Your task to perform on an android device: delete the emails in spam in the gmail app Image 0: 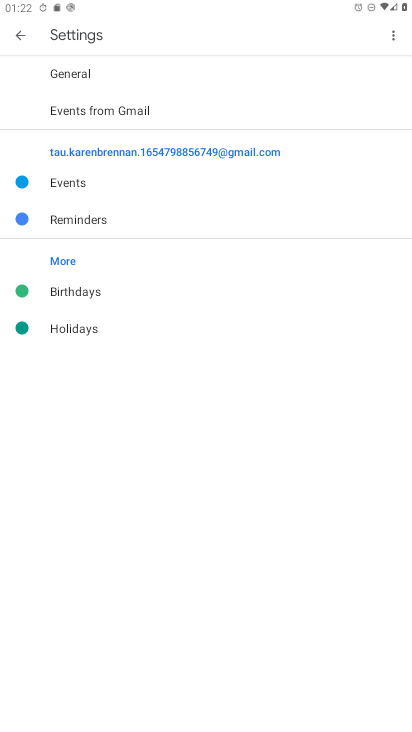
Step 0: drag from (309, 632) to (278, 318)
Your task to perform on an android device: delete the emails in spam in the gmail app Image 1: 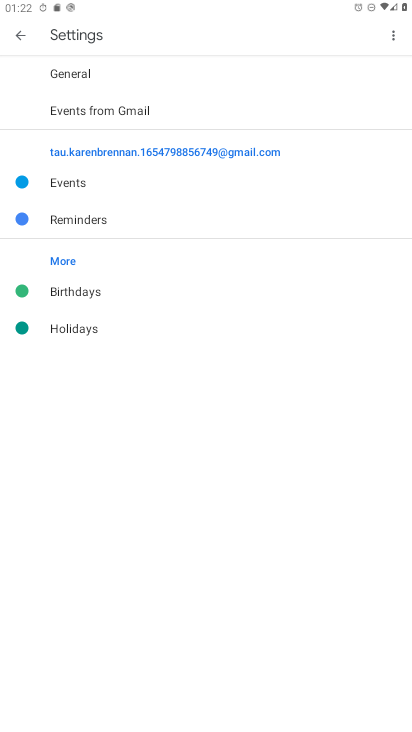
Step 1: press home button
Your task to perform on an android device: delete the emails in spam in the gmail app Image 2: 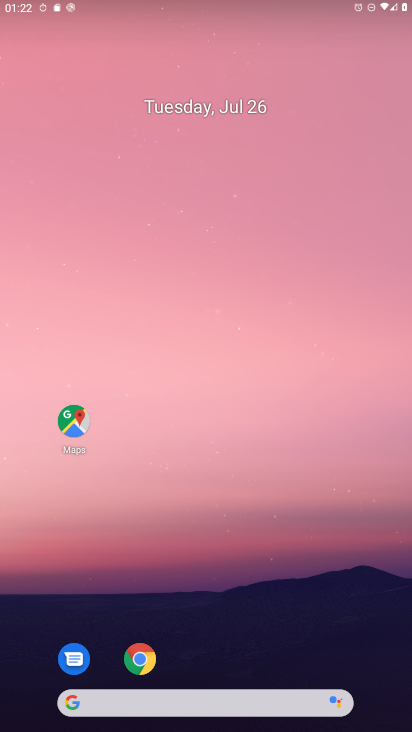
Step 2: drag from (283, 627) to (264, 154)
Your task to perform on an android device: delete the emails in spam in the gmail app Image 3: 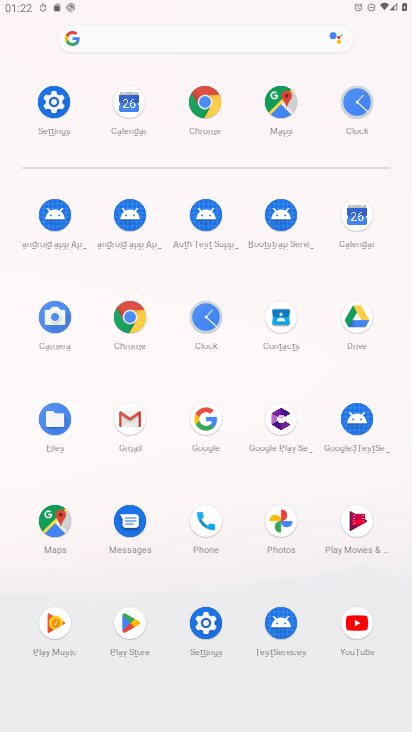
Step 3: click (130, 421)
Your task to perform on an android device: delete the emails in spam in the gmail app Image 4: 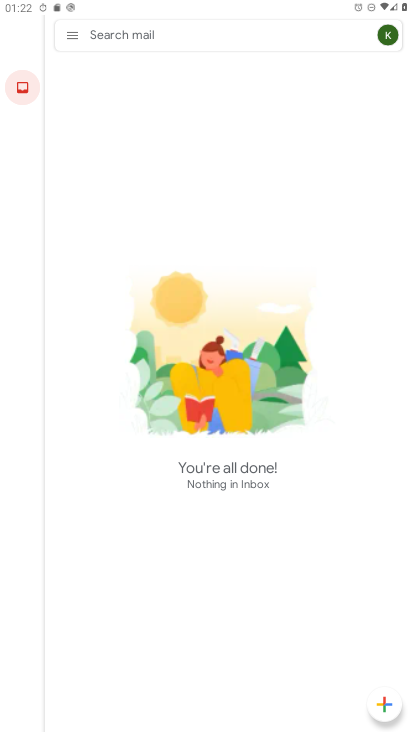
Step 4: click (75, 32)
Your task to perform on an android device: delete the emails in spam in the gmail app Image 5: 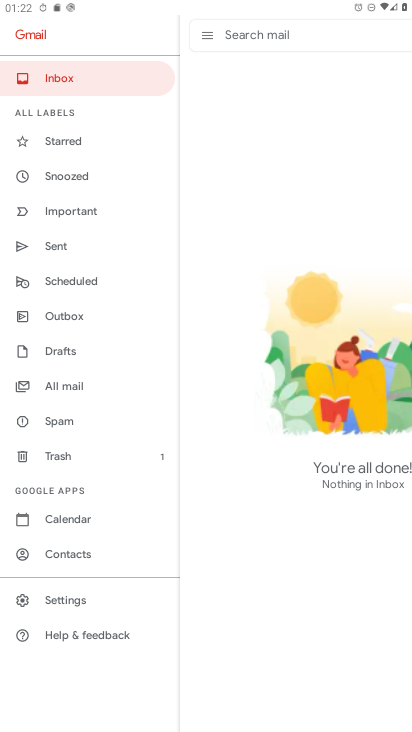
Step 5: click (54, 415)
Your task to perform on an android device: delete the emails in spam in the gmail app Image 6: 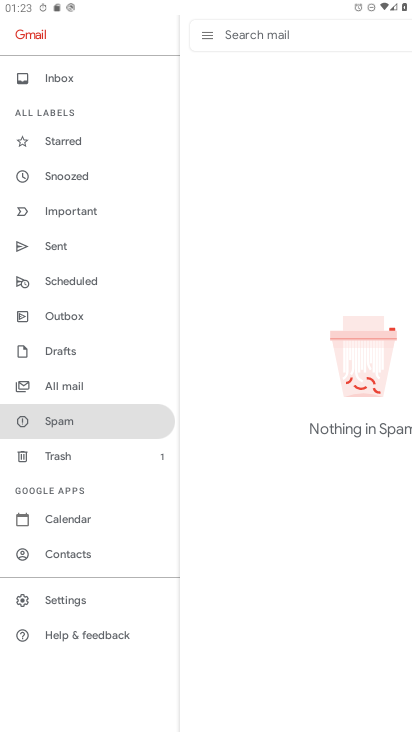
Step 6: task complete